Your task to perform on an android device: Go to location settings Image 0: 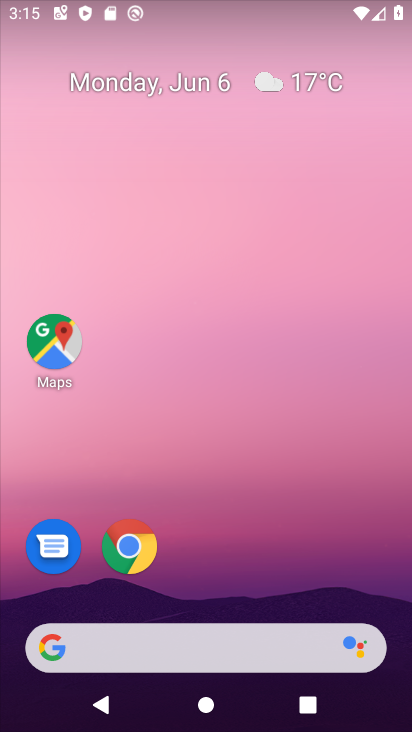
Step 0: drag from (248, 614) to (281, 3)
Your task to perform on an android device: Go to location settings Image 1: 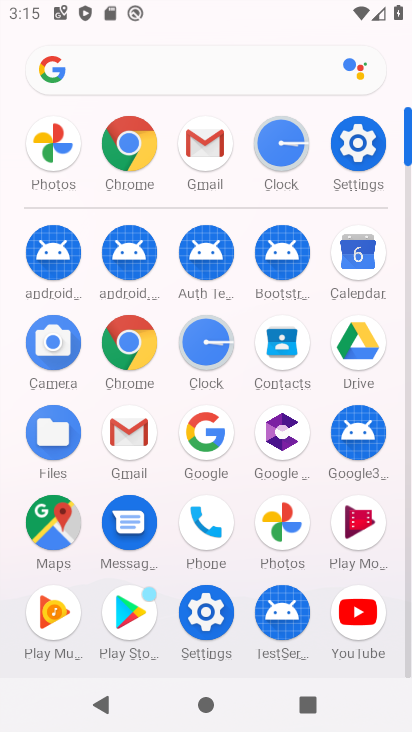
Step 1: click (370, 138)
Your task to perform on an android device: Go to location settings Image 2: 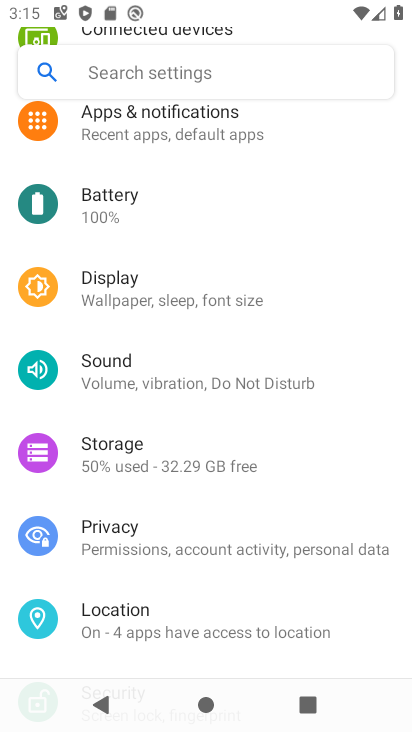
Step 2: click (194, 653)
Your task to perform on an android device: Go to location settings Image 3: 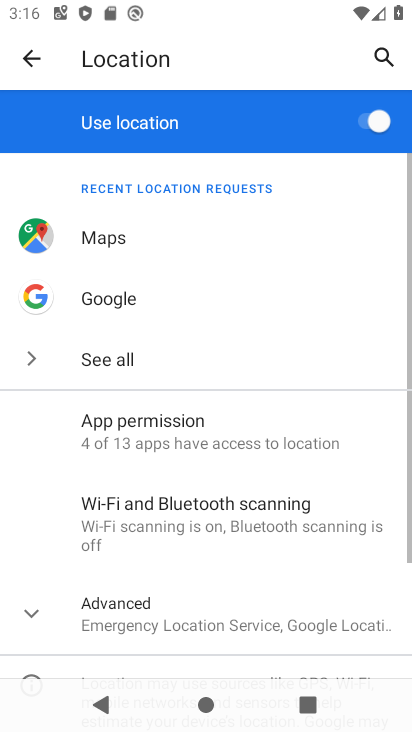
Step 3: task complete